Your task to perform on an android device: toggle translation in the chrome app Image 0: 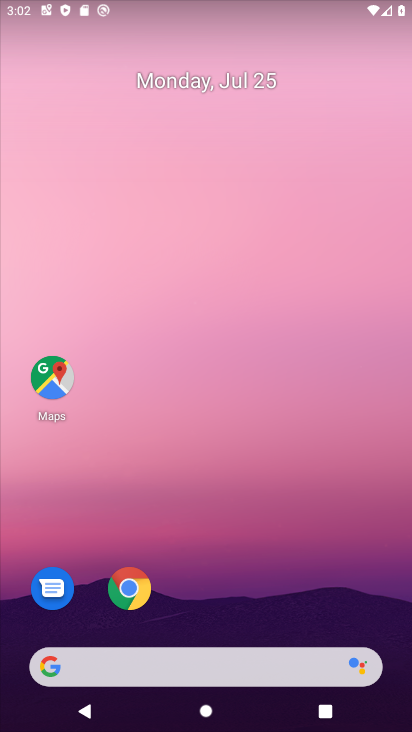
Step 0: drag from (283, 538) to (115, 21)
Your task to perform on an android device: toggle translation in the chrome app Image 1: 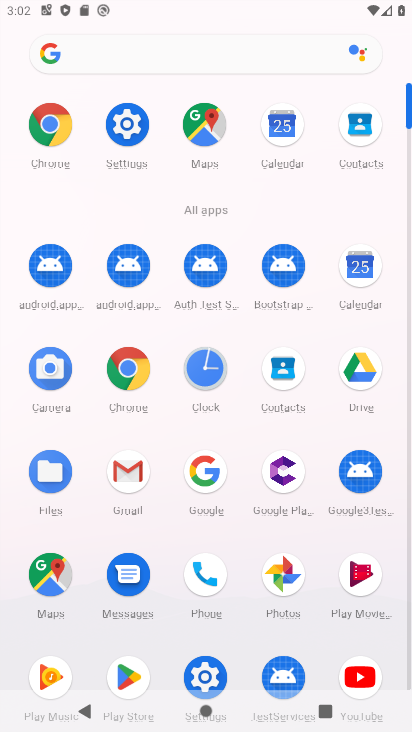
Step 1: click (52, 132)
Your task to perform on an android device: toggle translation in the chrome app Image 2: 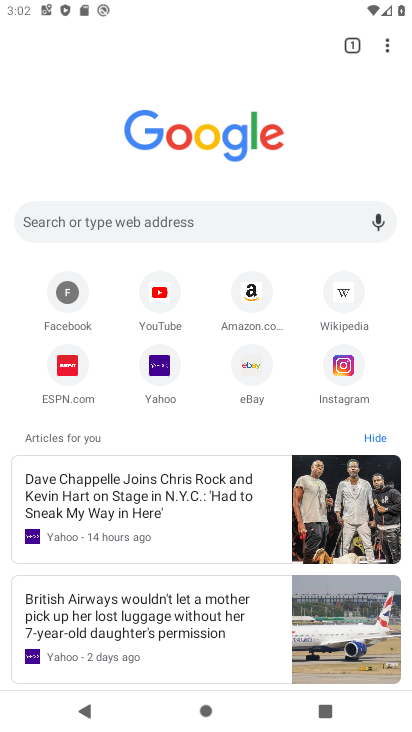
Step 2: drag from (396, 39) to (243, 390)
Your task to perform on an android device: toggle translation in the chrome app Image 3: 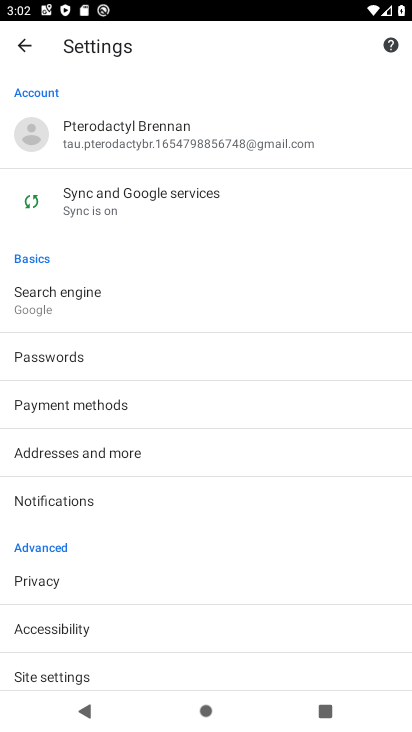
Step 3: drag from (205, 593) to (208, 206)
Your task to perform on an android device: toggle translation in the chrome app Image 4: 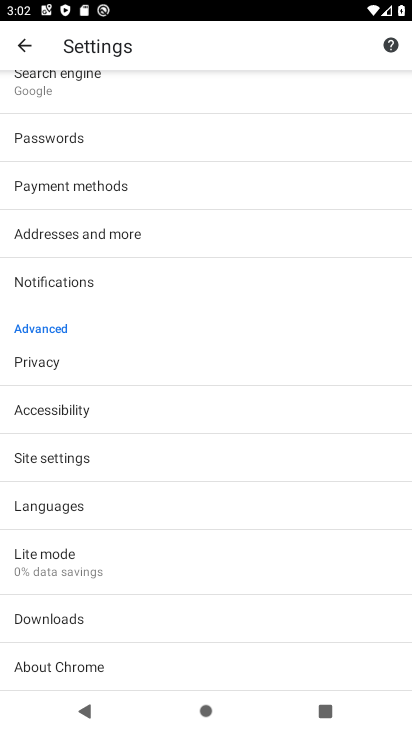
Step 4: drag from (87, 576) to (158, 234)
Your task to perform on an android device: toggle translation in the chrome app Image 5: 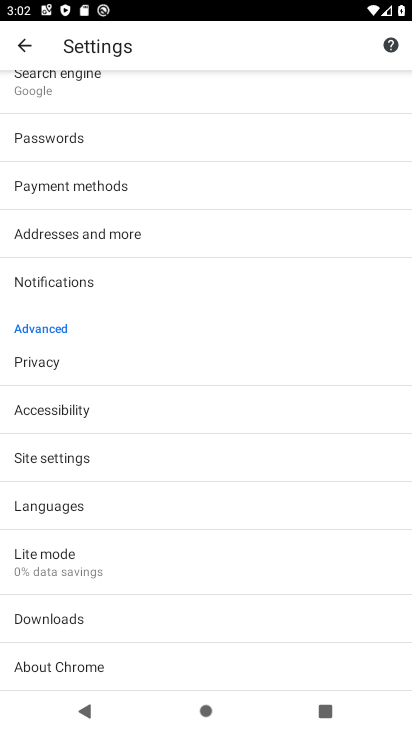
Step 5: click (67, 507)
Your task to perform on an android device: toggle translation in the chrome app Image 6: 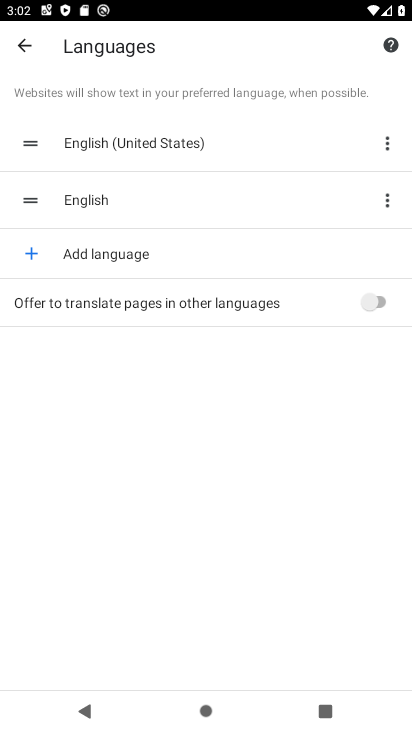
Step 6: click (375, 294)
Your task to perform on an android device: toggle translation in the chrome app Image 7: 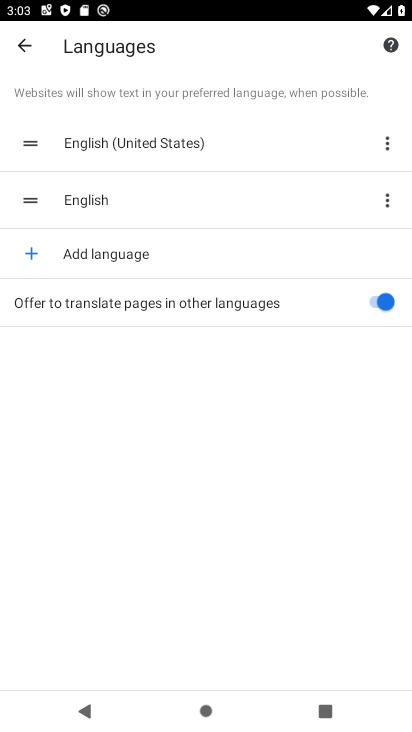
Step 7: task complete